Your task to perform on an android device: allow cookies in the chrome app Image 0: 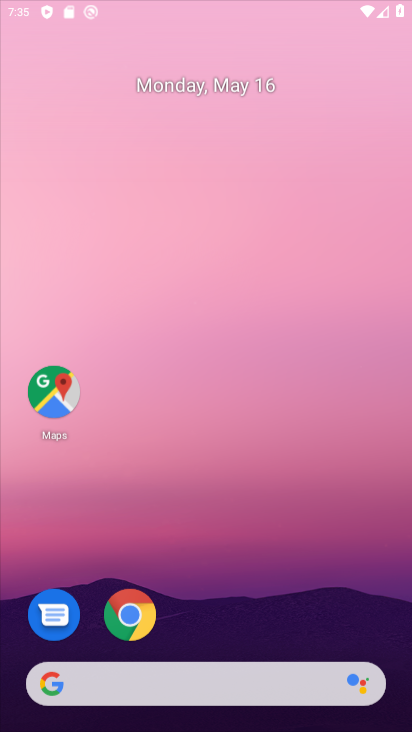
Step 0: drag from (185, 299) to (182, 197)
Your task to perform on an android device: allow cookies in the chrome app Image 1: 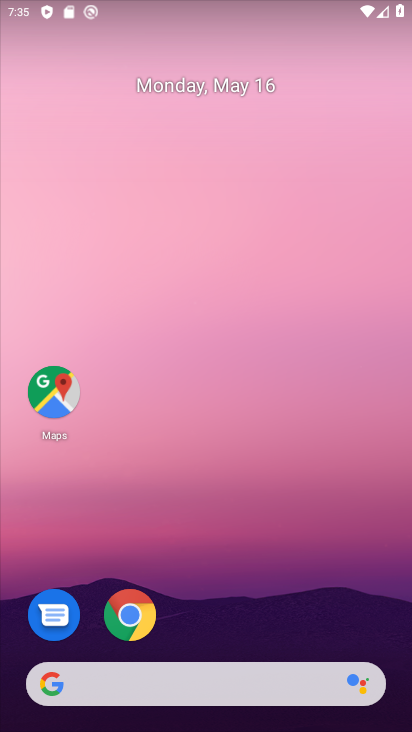
Step 1: drag from (192, 682) to (204, 18)
Your task to perform on an android device: allow cookies in the chrome app Image 2: 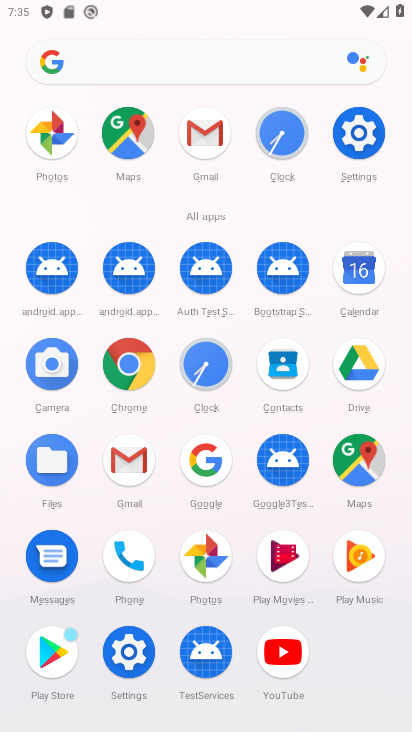
Step 2: click (126, 358)
Your task to perform on an android device: allow cookies in the chrome app Image 3: 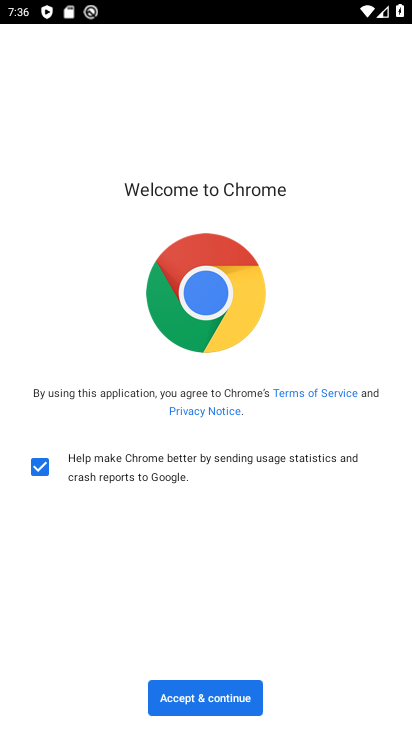
Step 3: click (234, 708)
Your task to perform on an android device: allow cookies in the chrome app Image 4: 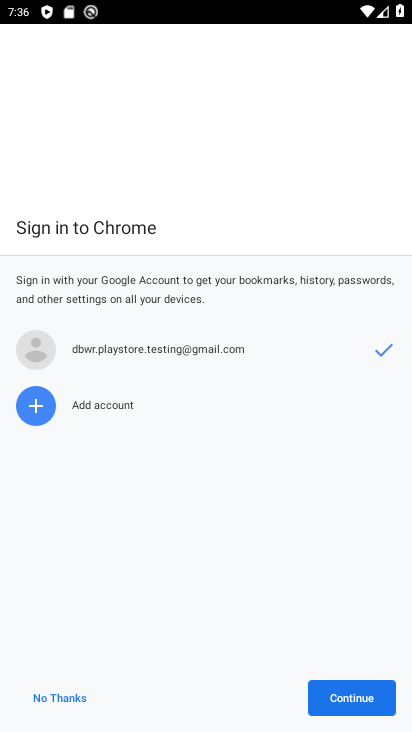
Step 4: click (380, 703)
Your task to perform on an android device: allow cookies in the chrome app Image 5: 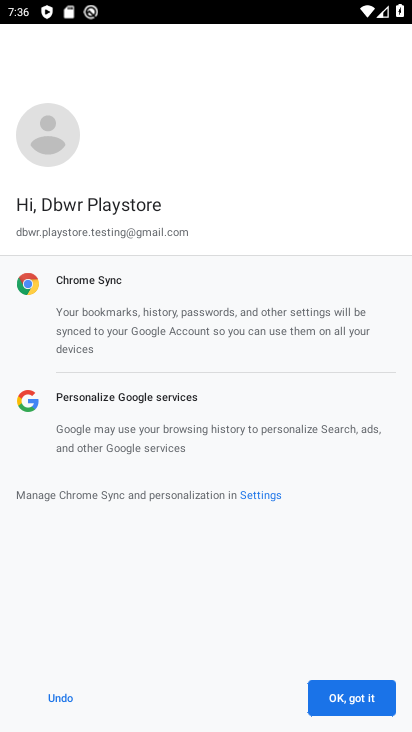
Step 5: click (368, 687)
Your task to perform on an android device: allow cookies in the chrome app Image 6: 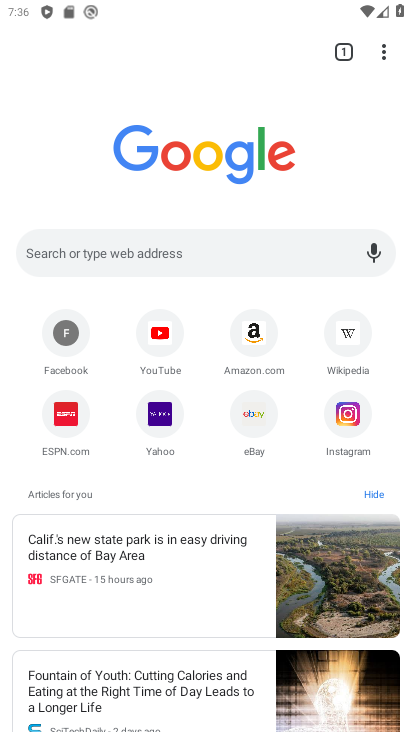
Step 6: click (383, 35)
Your task to perform on an android device: allow cookies in the chrome app Image 7: 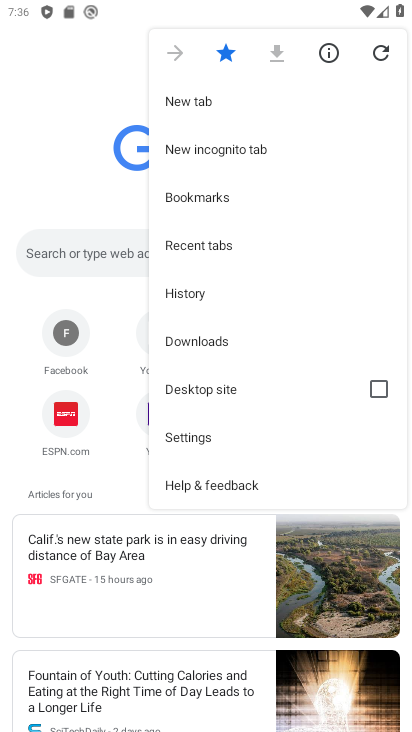
Step 7: click (198, 441)
Your task to perform on an android device: allow cookies in the chrome app Image 8: 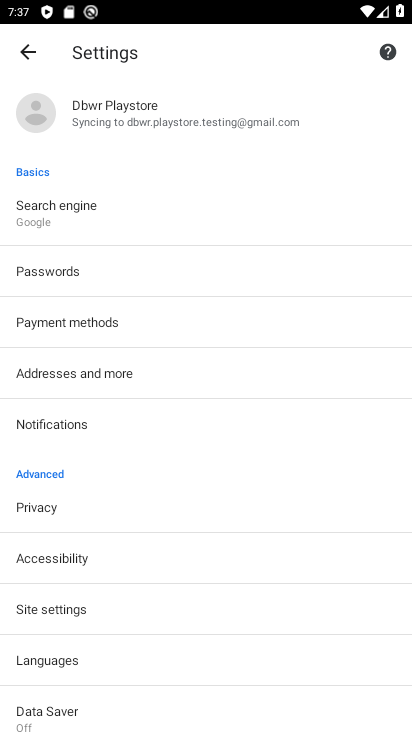
Step 8: click (192, 422)
Your task to perform on an android device: allow cookies in the chrome app Image 9: 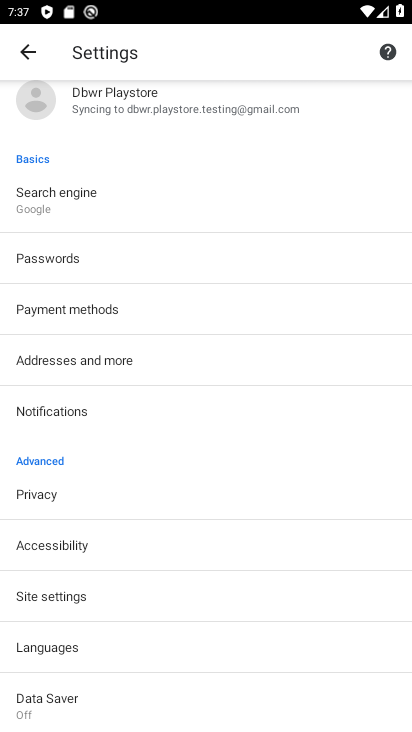
Step 9: click (99, 595)
Your task to perform on an android device: allow cookies in the chrome app Image 10: 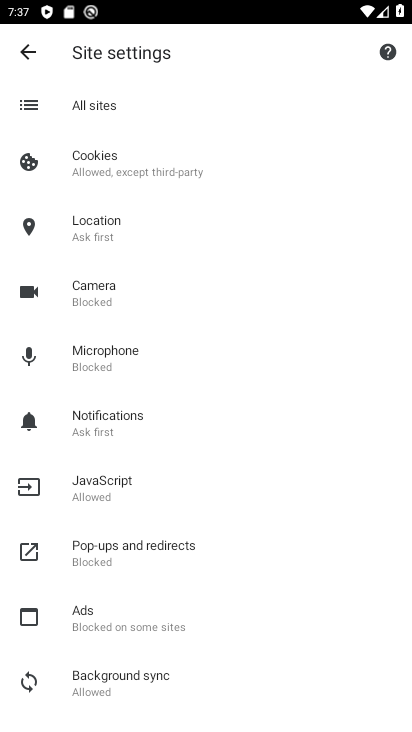
Step 10: click (139, 194)
Your task to perform on an android device: allow cookies in the chrome app Image 11: 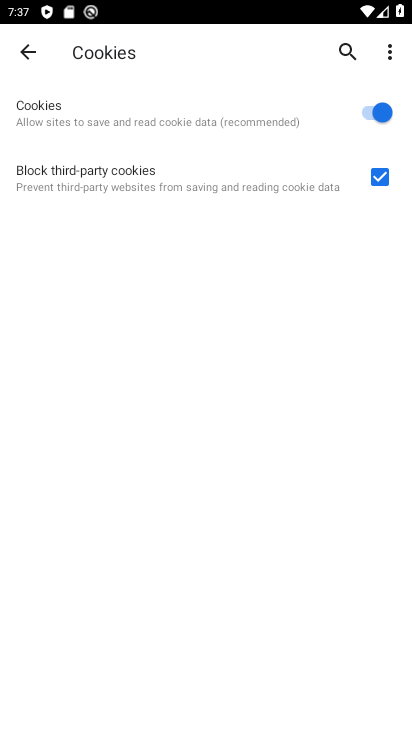
Step 11: task complete